Your task to perform on an android device: Show me popular games on the Play Store Image 0: 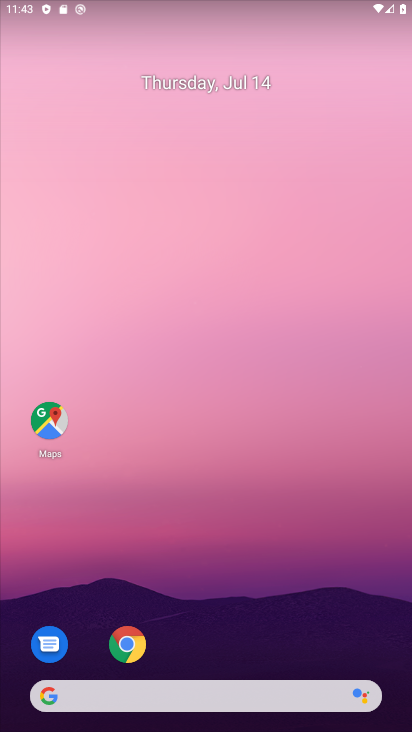
Step 0: drag from (331, 639) to (304, 73)
Your task to perform on an android device: Show me popular games on the Play Store Image 1: 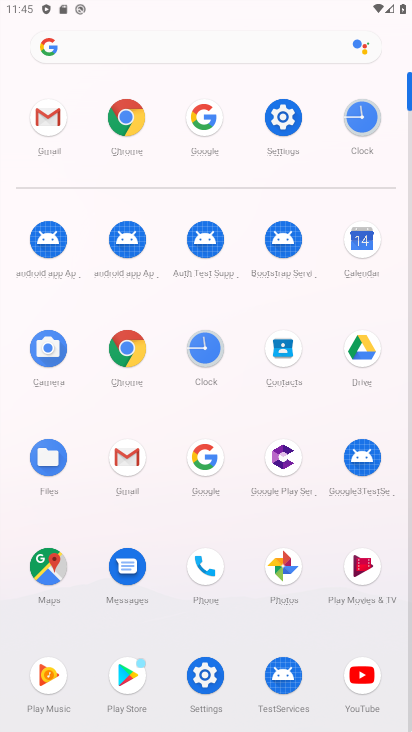
Step 1: click (130, 679)
Your task to perform on an android device: Show me popular games on the Play Store Image 2: 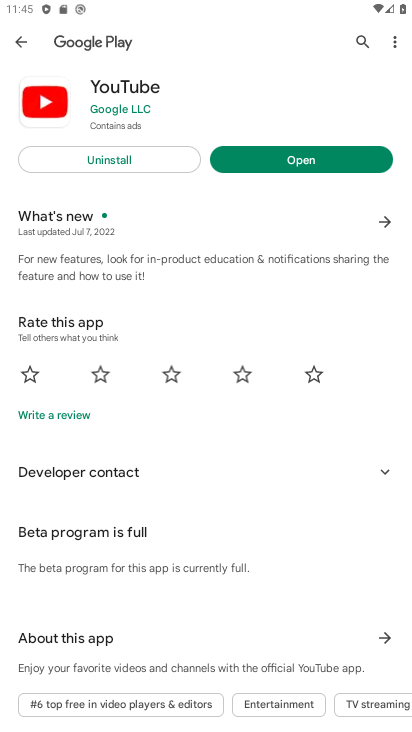
Step 2: press back button
Your task to perform on an android device: Show me popular games on the Play Store Image 3: 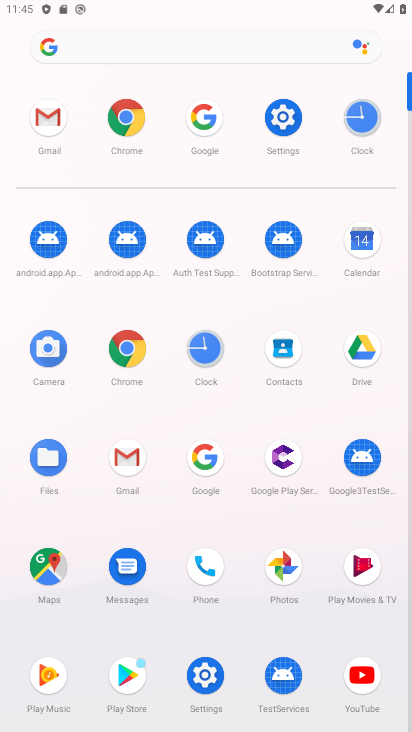
Step 3: click (134, 676)
Your task to perform on an android device: Show me popular games on the Play Store Image 4: 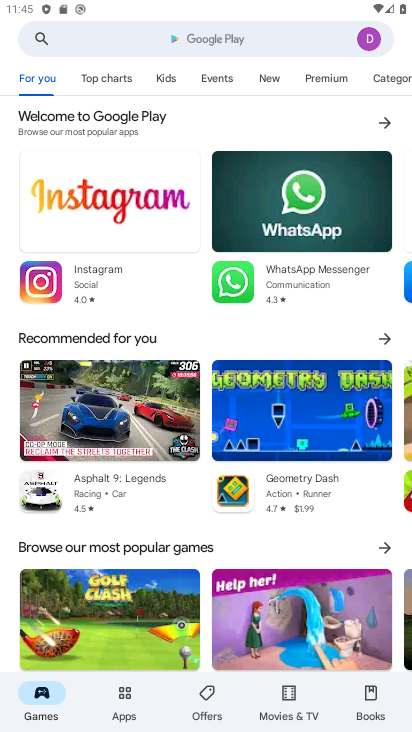
Step 4: click (133, 37)
Your task to perform on an android device: Show me popular games on the Play Store Image 5: 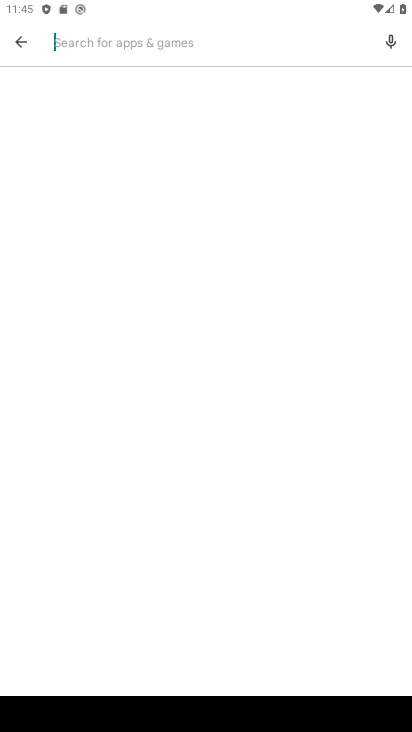
Step 5: type "popular games"
Your task to perform on an android device: Show me popular games on the Play Store Image 6: 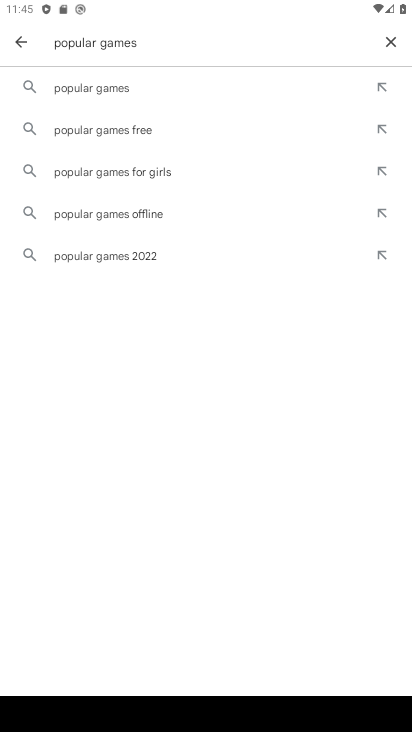
Step 6: click (123, 87)
Your task to perform on an android device: Show me popular games on the Play Store Image 7: 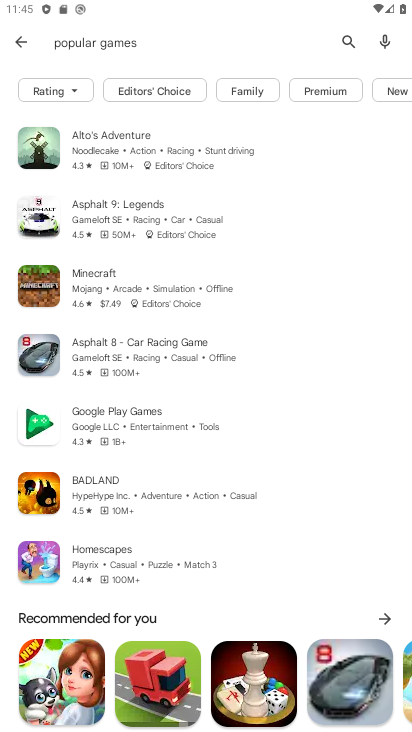
Step 7: task complete